Your task to perform on an android device: turn off translation in the chrome app Image 0: 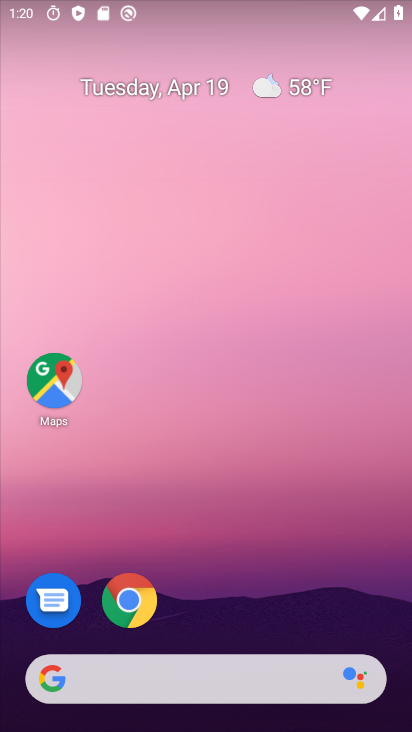
Step 0: drag from (281, 677) to (364, 313)
Your task to perform on an android device: turn off translation in the chrome app Image 1: 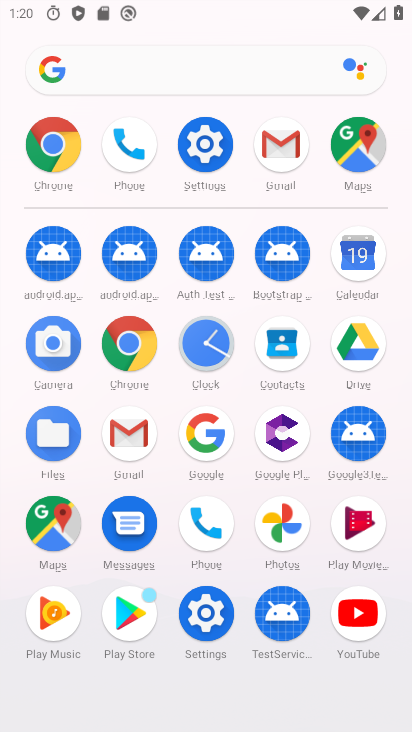
Step 1: click (135, 332)
Your task to perform on an android device: turn off translation in the chrome app Image 2: 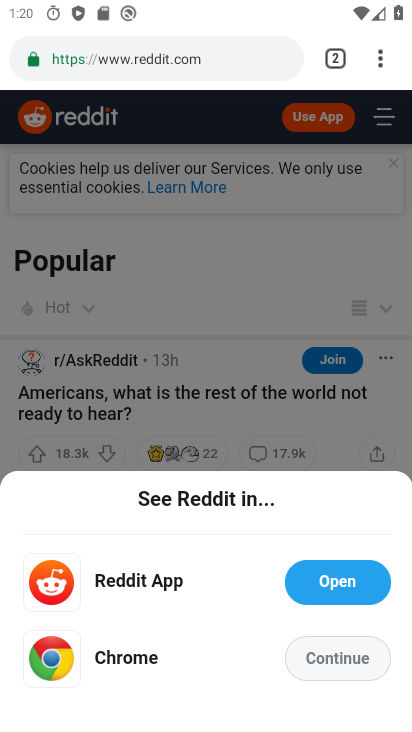
Step 2: click (377, 67)
Your task to perform on an android device: turn off translation in the chrome app Image 3: 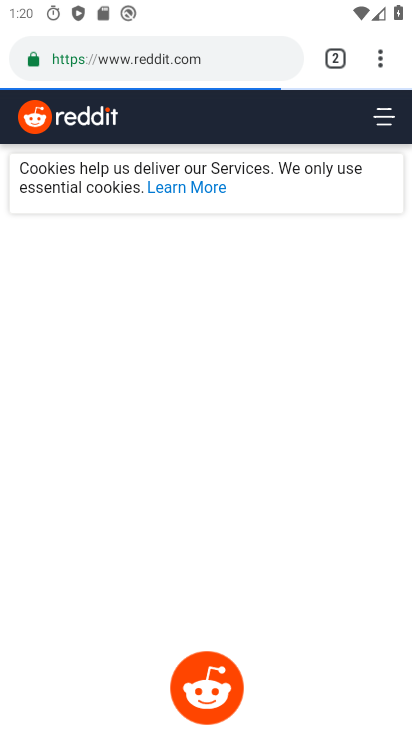
Step 3: click (377, 67)
Your task to perform on an android device: turn off translation in the chrome app Image 4: 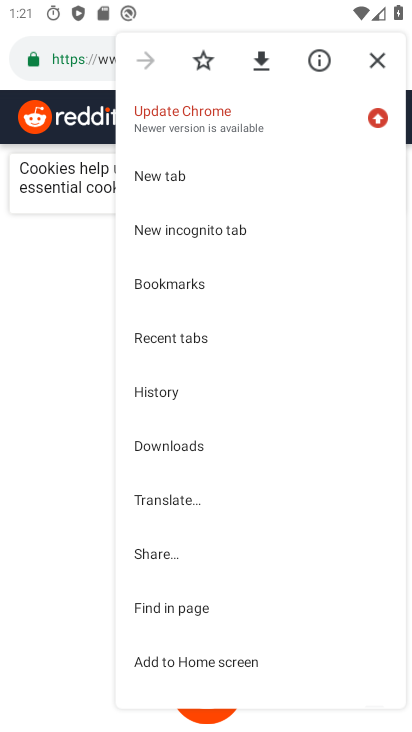
Step 4: drag from (278, 379) to (332, 254)
Your task to perform on an android device: turn off translation in the chrome app Image 5: 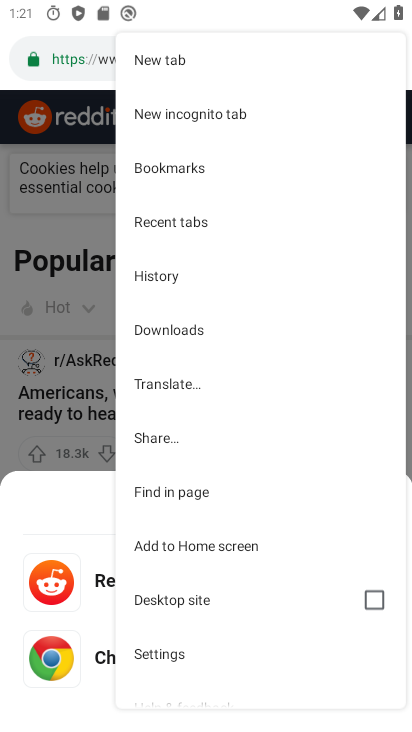
Step 5: click (161, 652)
Your task to perform on an android device: turn off translation in the chrome app Image 6: 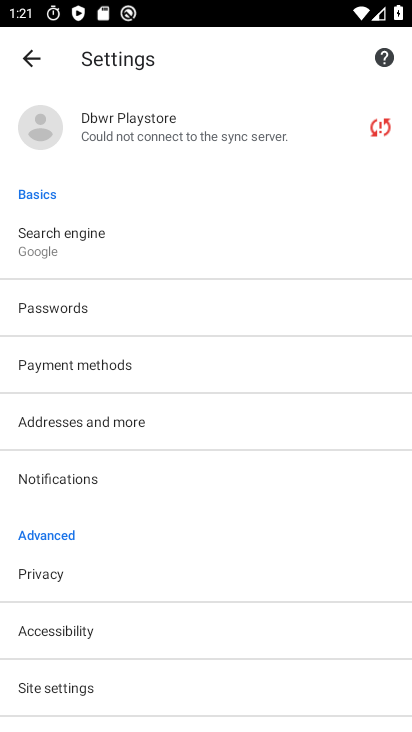
Step 6: drag from (88, 685) to (158, 514)
Your task to perform on an android device: turn off translation in the chrome app Image 7: 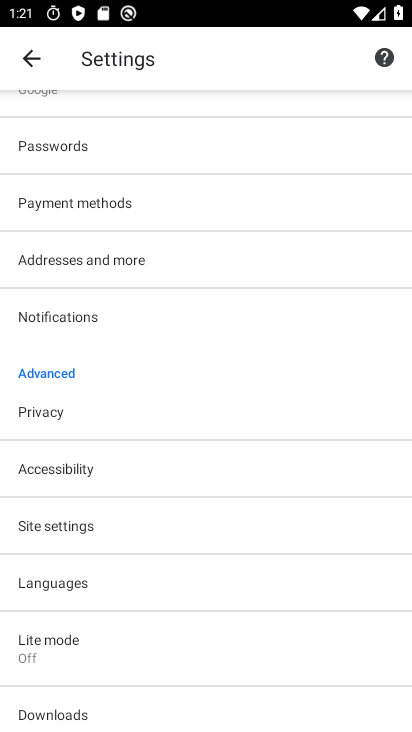
Step 7: click (75, 580)
Your task to perform on an android device: turn off translation in the chrome app Image 8: 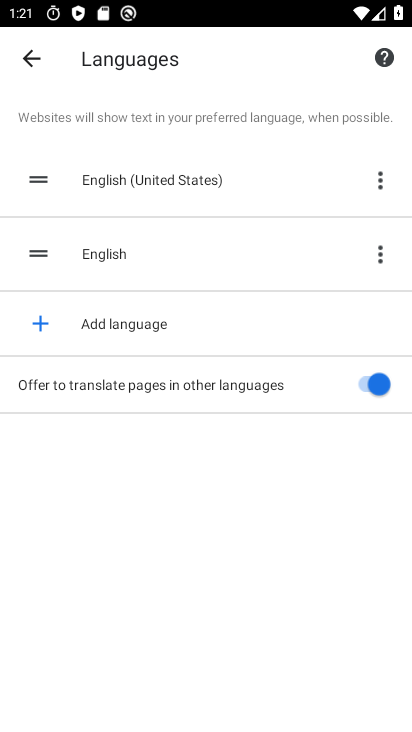
Step 8: click (218, 386)
Your task to perform on an android device: turn off translation in the chrome app Image 9: 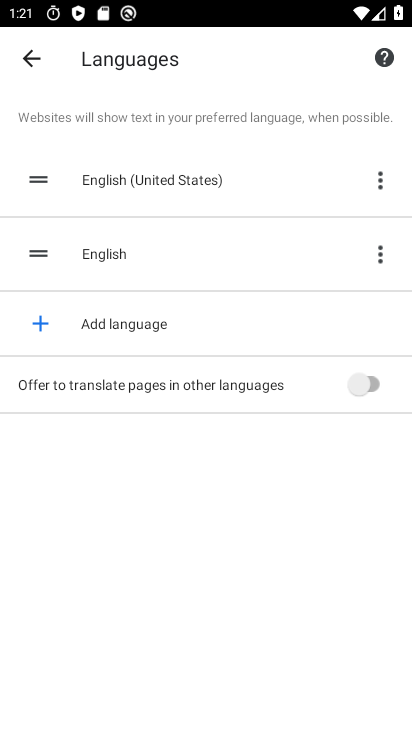
Step 9: task complete